Your task to perform on an android device: turn pop-ups off in chrome Image 0: 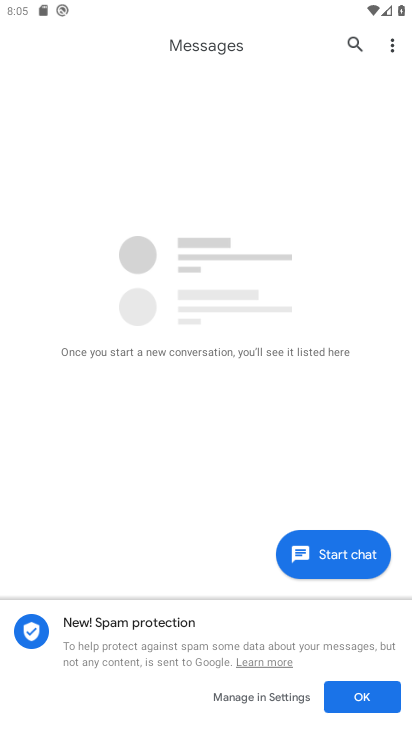
Step 0: press home button
Your task to perform on an android device: turn pop-ups off in chrome Image 1: 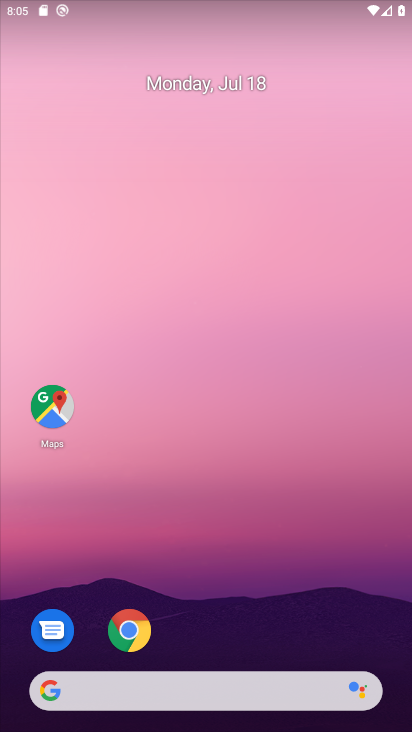
Step 1: click (143, 614)
Your task to perform on an android device: turn pop-ups off in chrome Image 2: 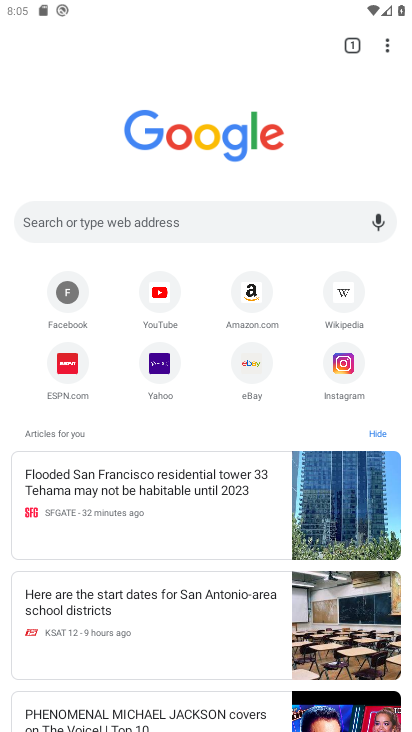
Step 2: click (375, 45)
Your task to perform on an android device: turn pop-ups off in chrome Image 3: 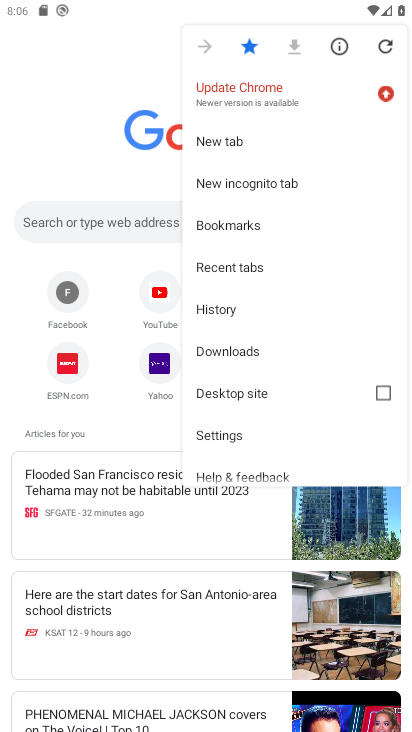
Step 3: click (212, 435)
Your task to perform on an android device: turn pop-ups off in chrome Image 4: 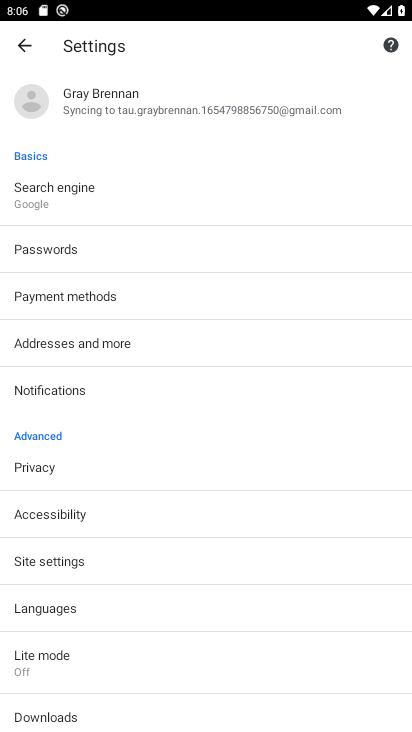
Step 4: click (70, 569)
Your task to perform on an android device: turn pop-ups off in chrome Image 5: 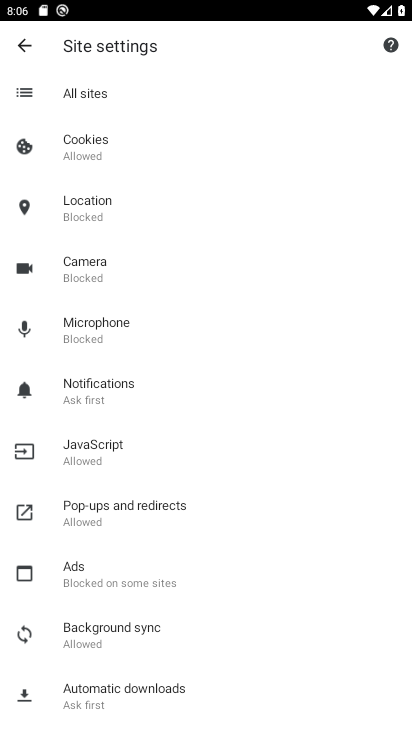
Step 5: click (118, 504)
Your task to perform on an android device: turn pop-ups off in chrome Image 6: 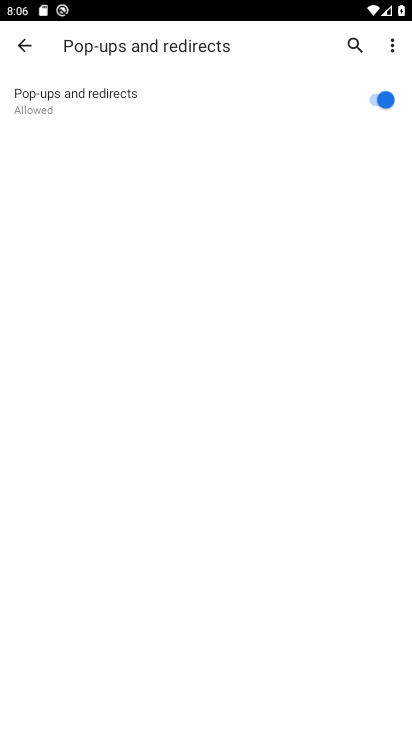
Step 6: click (381, 99)
Your task to perform on an android device: turn pop-ups off in chrome Image 7: 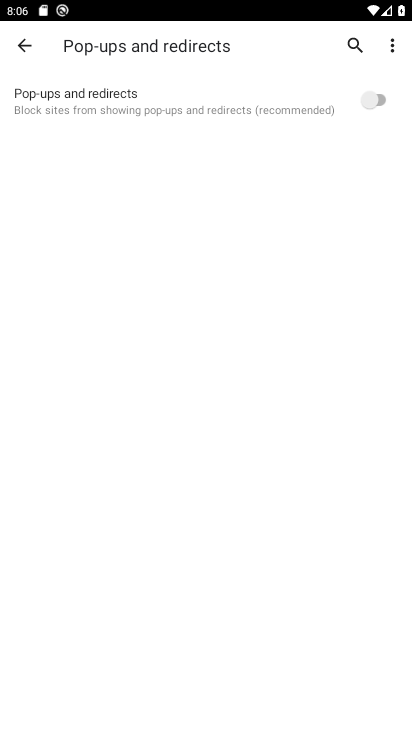
Step 7: task complete